Your task to perform on an android device: turn off wifi Image 0: 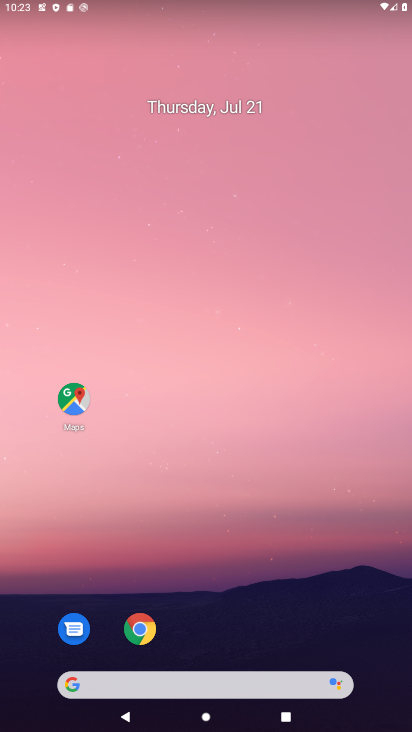
Step 0: drag from (262, 90) to (282, 401)
Your task to perform on an android device: turn off wifi Image 1: 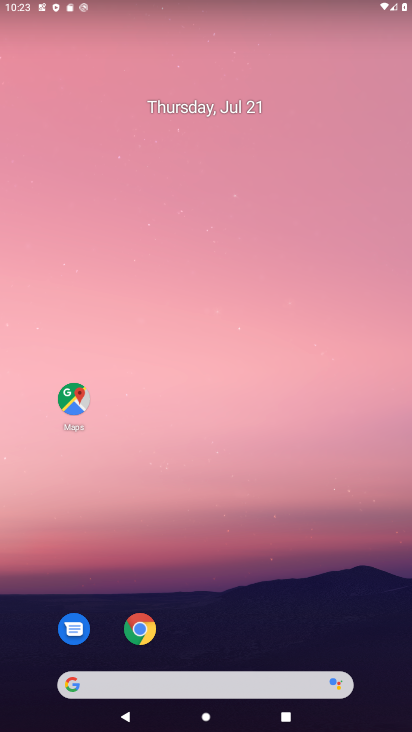
Step 1: drag from (260, 2) to (258, 366)
Your task to perform on an android device: turn off wifi Image 2: 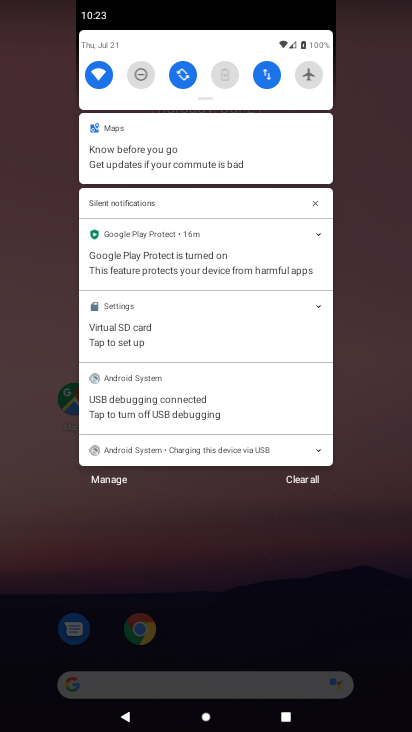
Step 2: click (94, 77)
Your task to perform on an android device: turn off wifi Image 3: 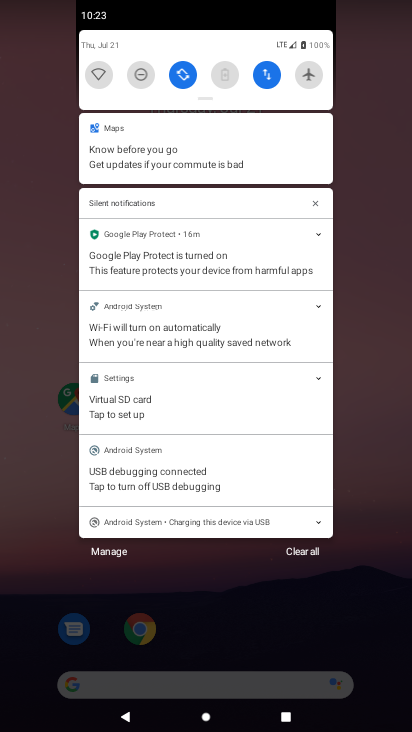
Step 3: task complete